Your task to perform on an android device: Open calendar and show me the fourth week of next month Image 0: 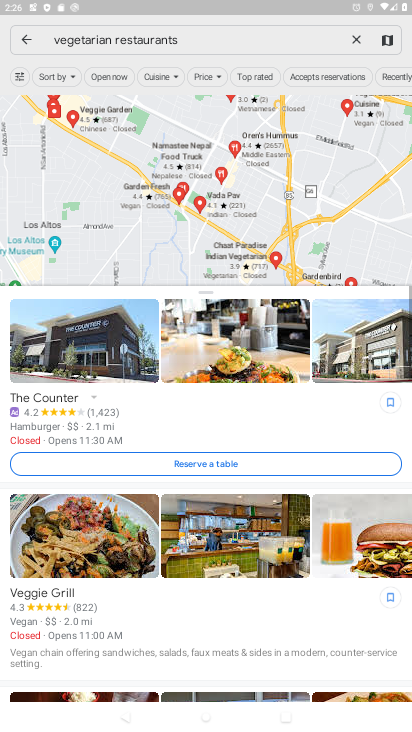
Step 0: press home button
Your task to perform on an android device: Open calendar and show me the fourth week of next month Image 1: 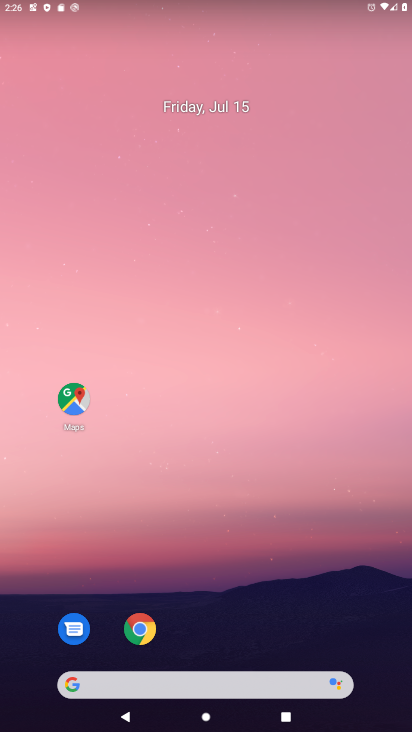
Step 1: drag from (230, 597) to (240, 236)
Your task to perform on an android device: Open calendar and show me the fourth week of next month Image 2: 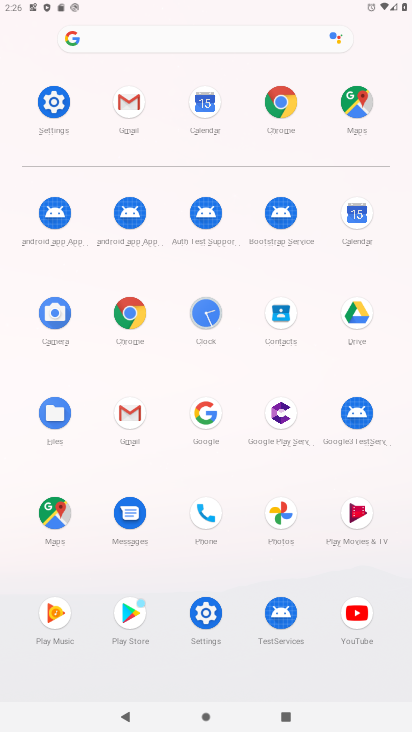
Step 2: click (365, 214)
Your task to perform on an android device: Open calendar and show me the fourth week of next month Image 3: 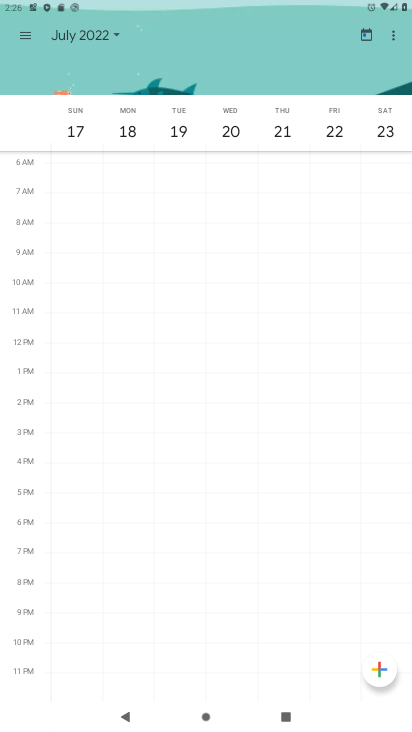
Step 3: click (109, 30)
Your task to perform on an android device: Open calendar and show me the fourth week of next month Image 4: 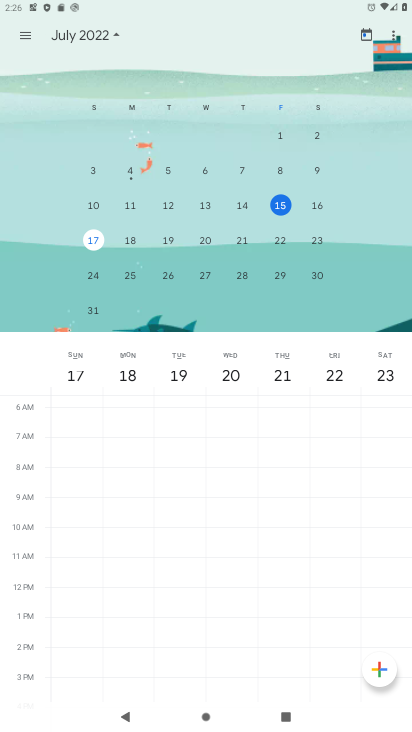
Step 4: drag from (322, 203) to (88, 164)
Your task to perform on an android device: Open calendar and show me the fourth week of next month Image 5: 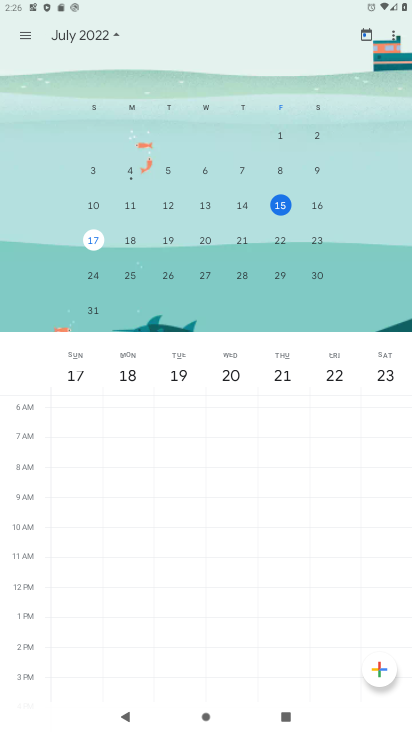
Step 5: drag from (341, 230) to (14, 204)
Your task to perform on an android device: Open calendar and show me the fourth week of next month Image 6: 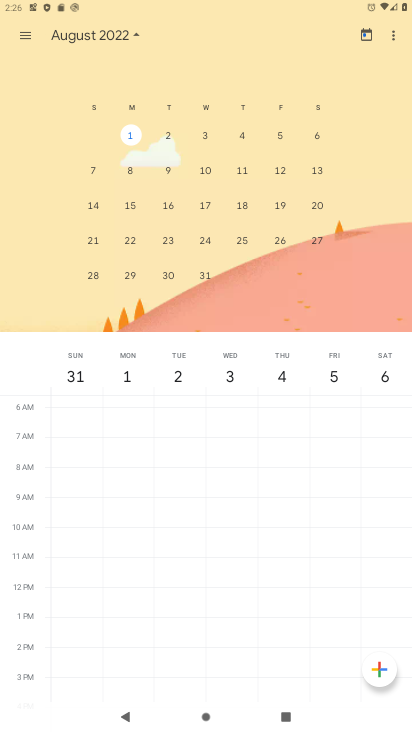
Step 6: click (240, 236)
Your task to perform on an android device: Open calendar and show me the fourth week of next month Image 7: 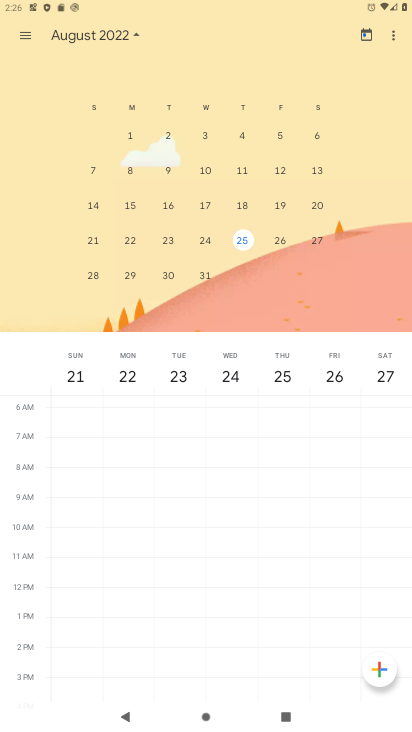
Step 7: task complete